Your task to perform on an android device: Open the calendar and show me this week's events? Image 0: 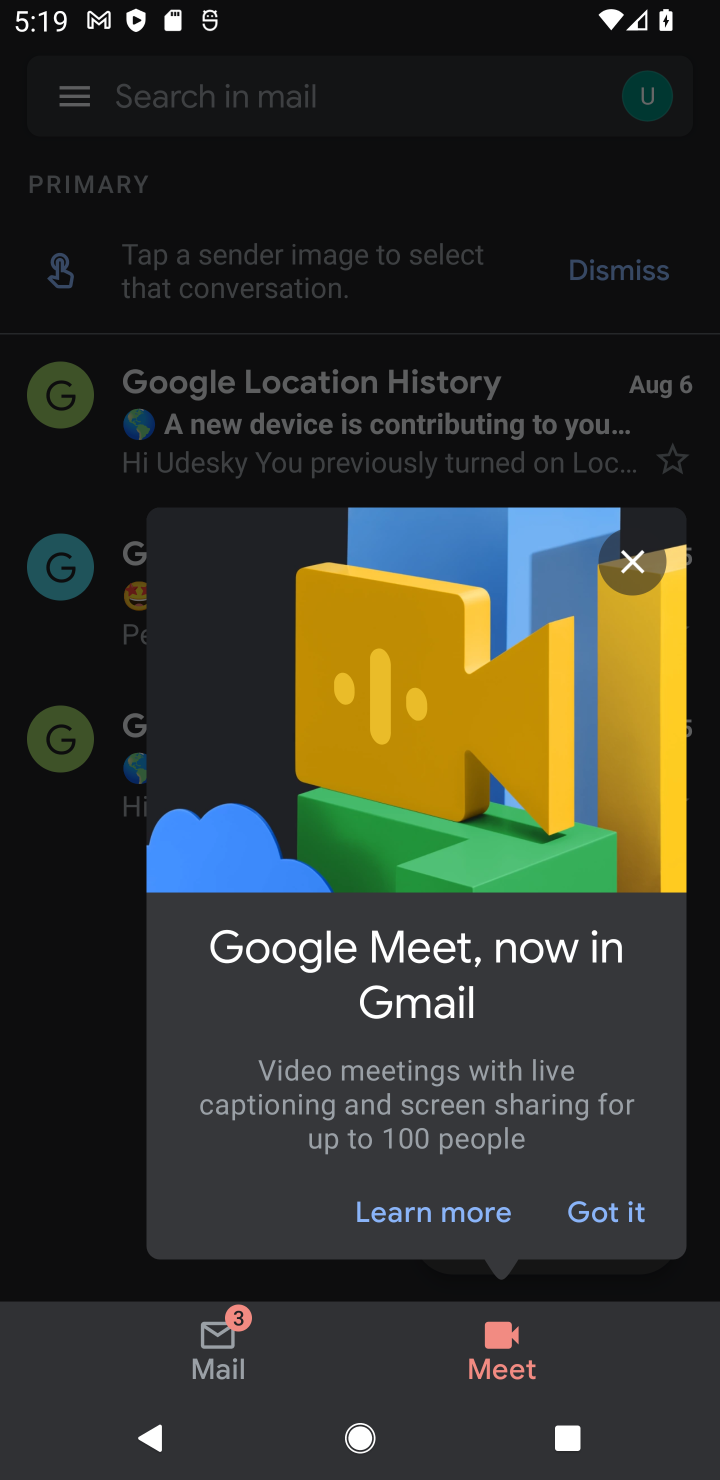
Step 0: press home button
Your task to perform on an android device: Open the calendar and show me this week's events? Image 1: 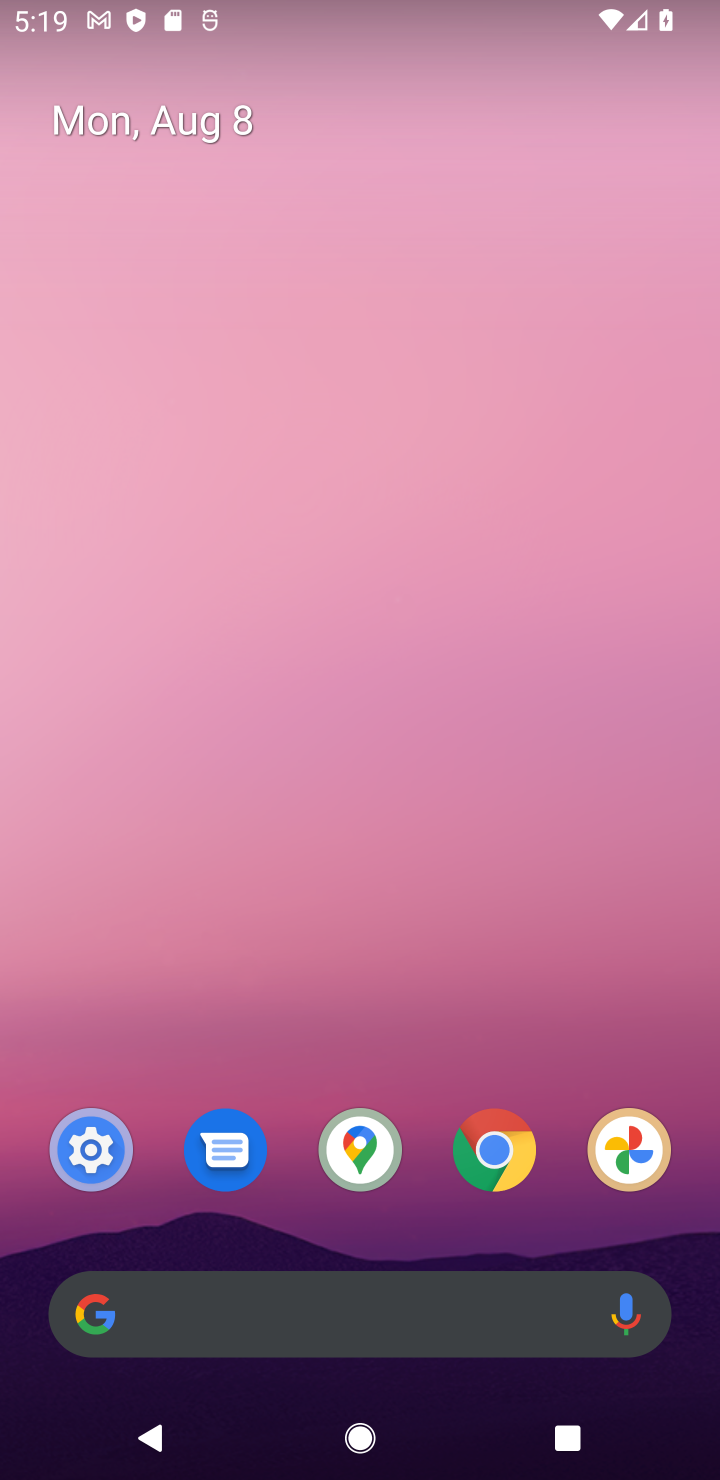
Step 1: drag from (395, 1215) to (327, 336)
Your task to perform on an android device: Open the calendar and show me this week's events? Image 2: 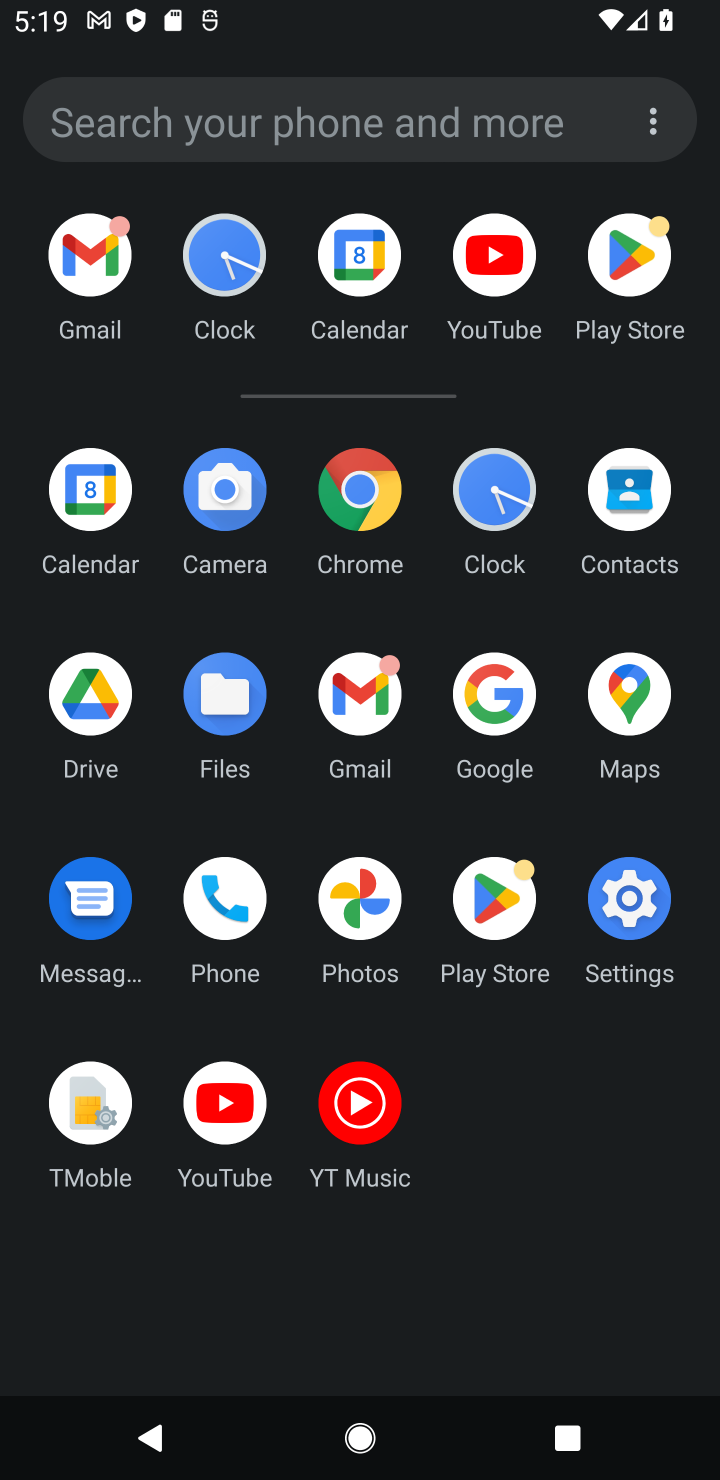
Step 2: click (35, 543)
Your task to perform on an android device: Open the calendar and show me this week's events? Image 3: 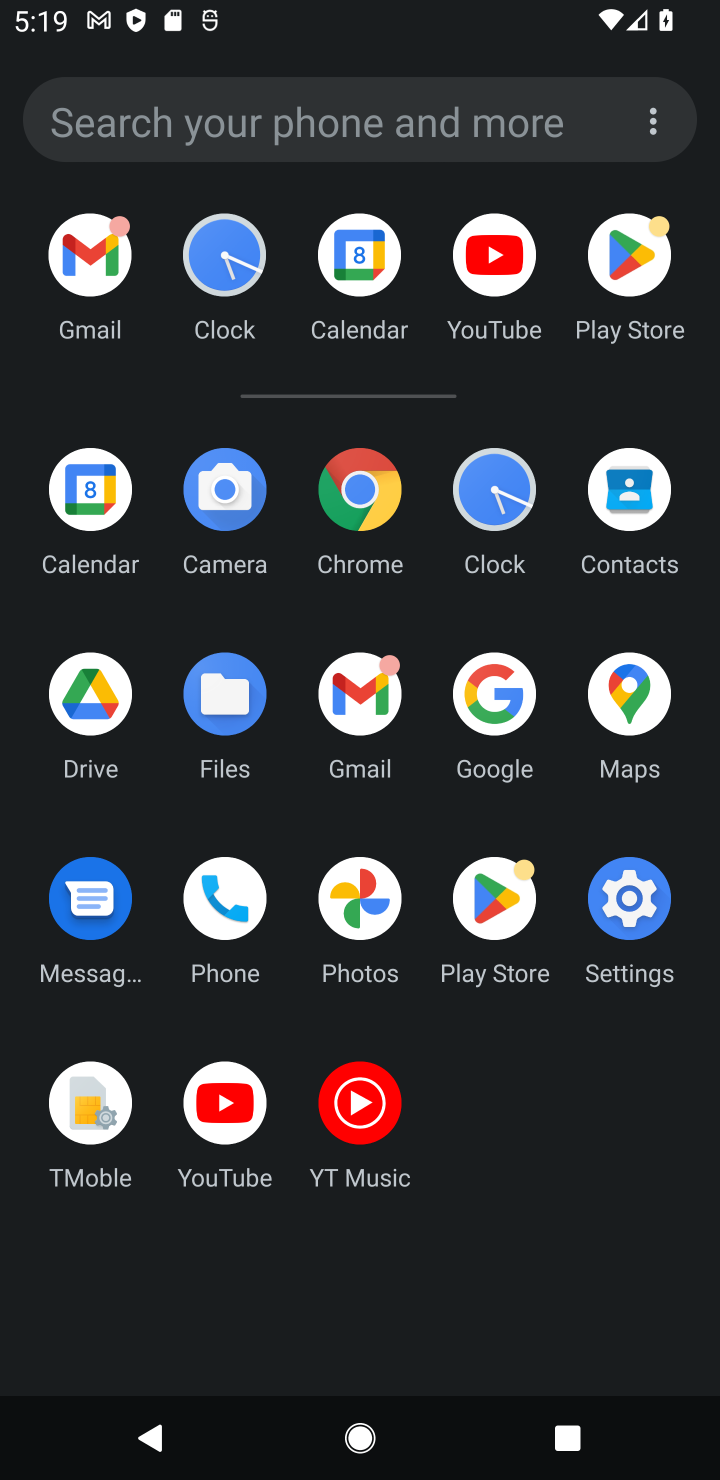
Step 3: click (77, 528)
Your task to perform on an android device: Open the calendar and show me this week's events? Image 4: 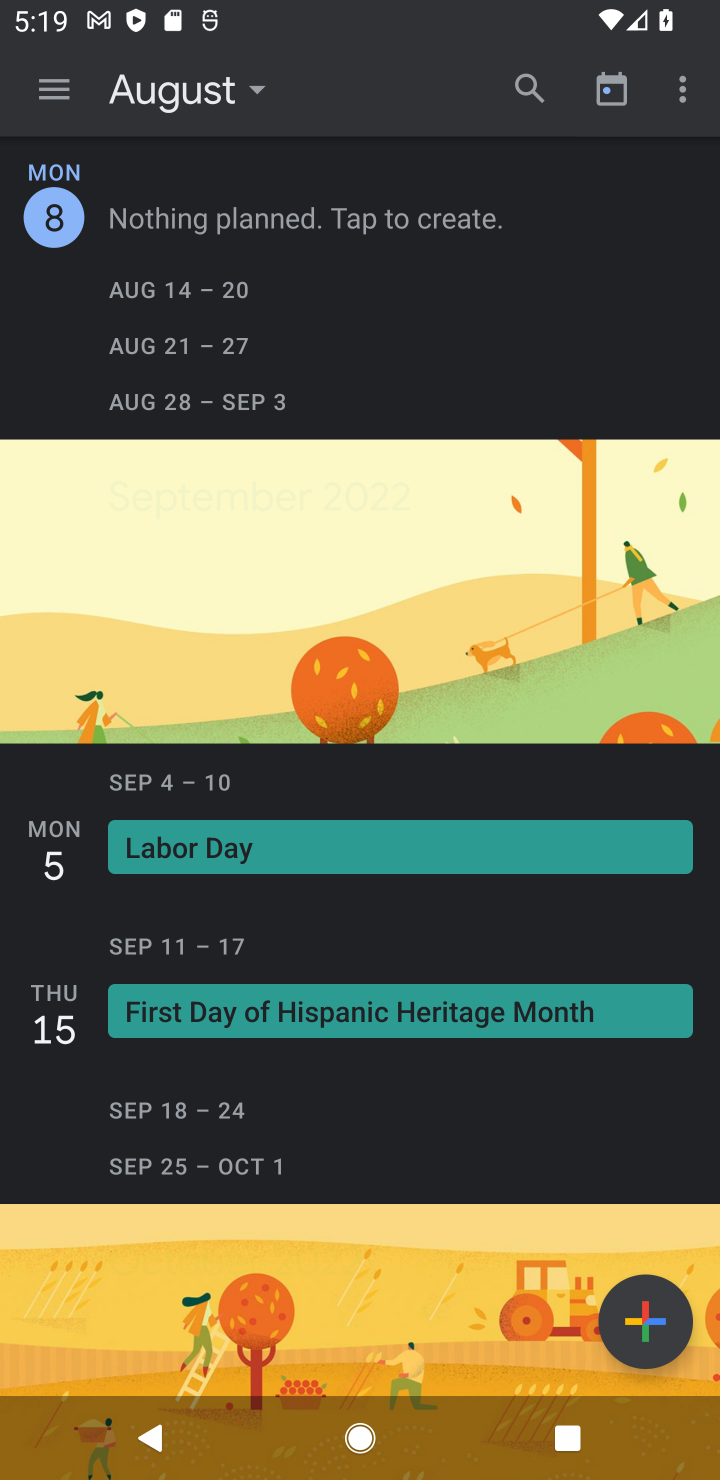
Step 4: task complete